Your task to perform on an android device: Go to CNN.com Image 0: 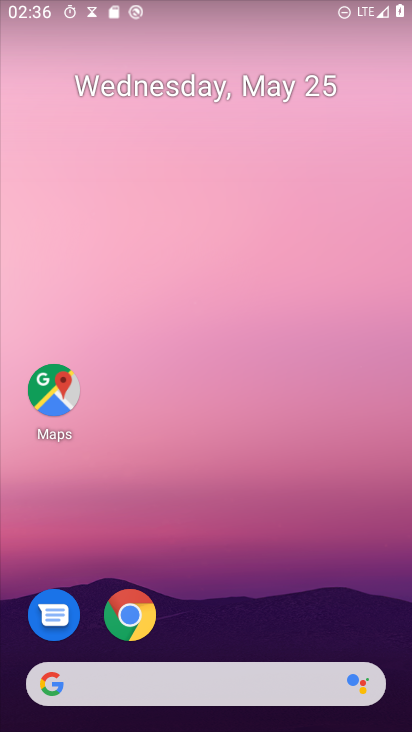
Step 0: drag from (339, 677) to (280, 63)
Your task to perform on an android device: Go to CNN.com Image 1: 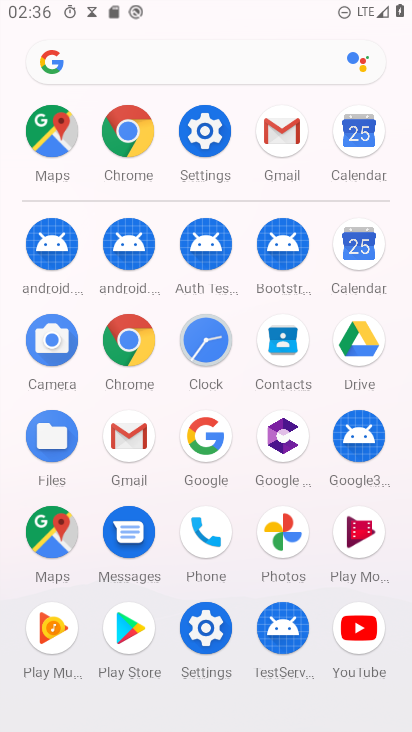
Step 1: click (129, 169)
Your task to perform on an android device: Go to CNN.com Image 2: 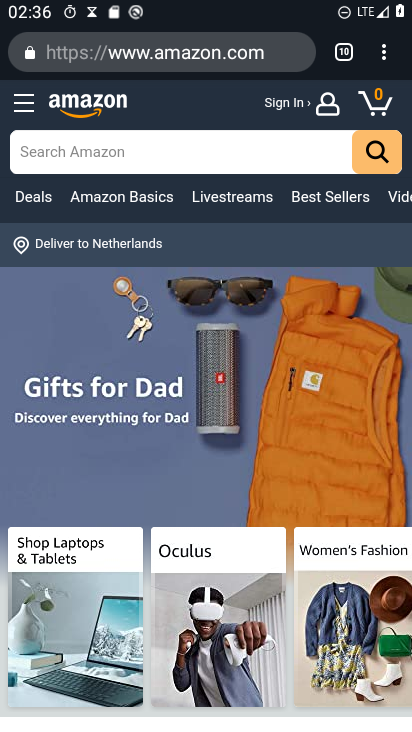
Step 2: click (225, 55)
Your task to perform on an android device: Go to CNN.com Image 3: 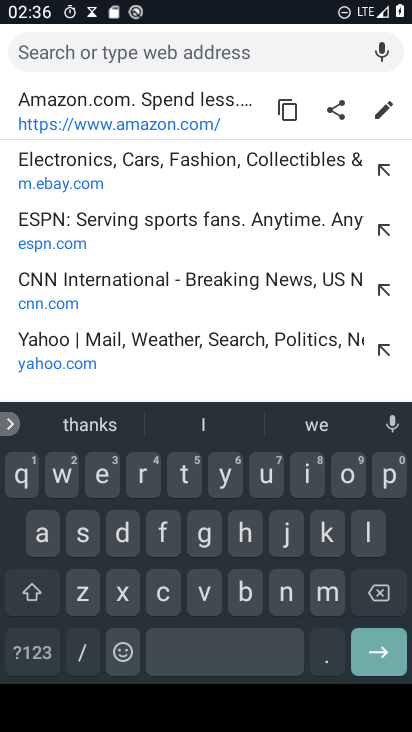
Step 3: click (170, 585)
Your task to perform on an android device: Go to CNN.com Image 4: 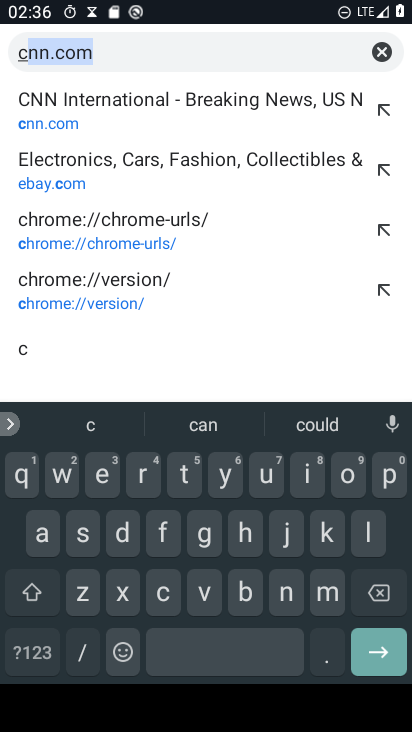
Step 4: click (294, 607)
Your task to perform on an android device: Go to CNN.com Image 5: 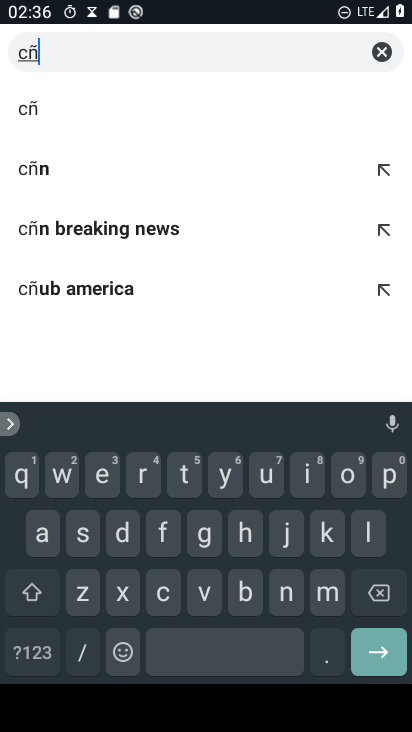
Step 5: click (387, 593)
Your task to perform on an android device: Go to CNN.com Image 6: 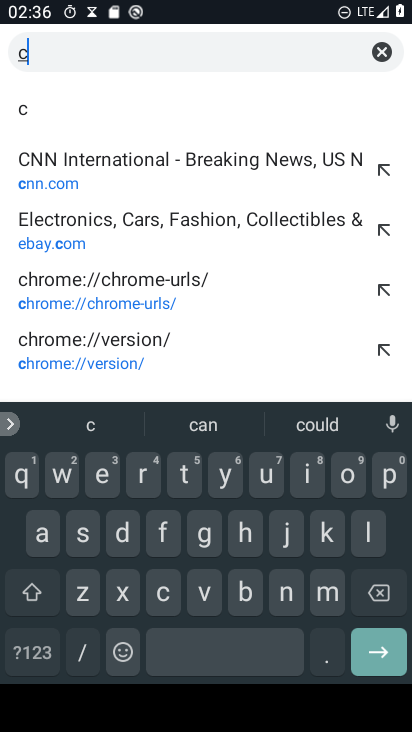
Step 6: click (120, 183)
Your task to perform on an android device: Go to CNN.com Image 7: 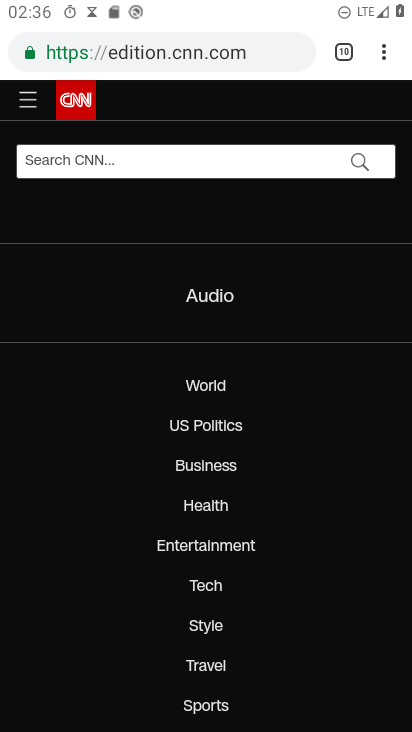
Step 7: task complete